Your task to perform on an android device: Go to Yahoo.com Image 0: 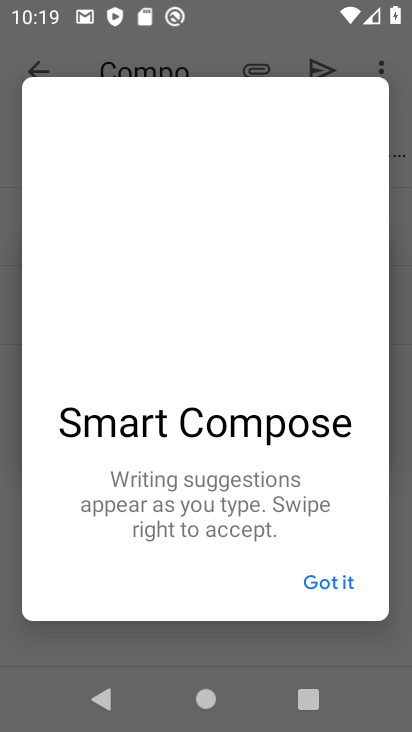
Step 0: press home button
Your task to perform on an android device: Go to Yahoo.com Image 1: 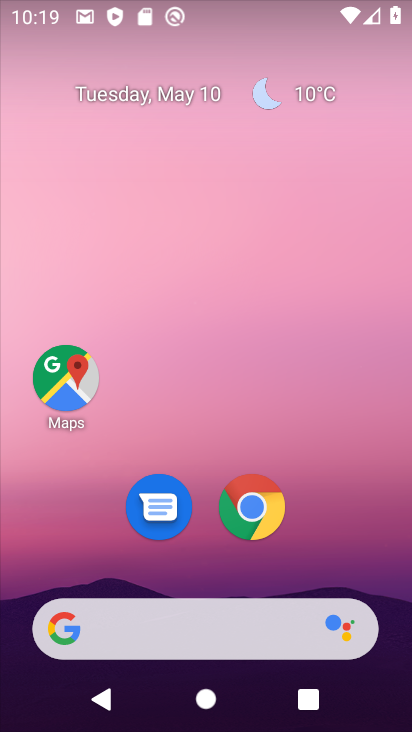
Step 1: click (254, 501)
Your task to perform on an android device: Go to Yahoo.com Image 2: 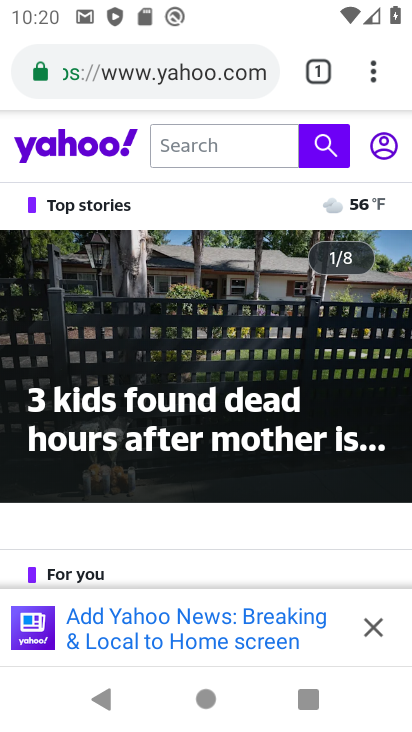
Step 2: task complete